Your task to perform on an android device: check data usage Image 0: 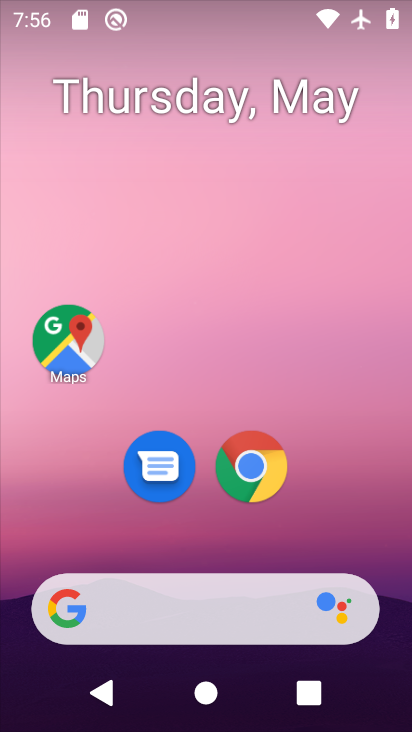
Step 0: drag from (368, 526) to (319, 156)
Your task to perform on an android device: check data usage Image 1: 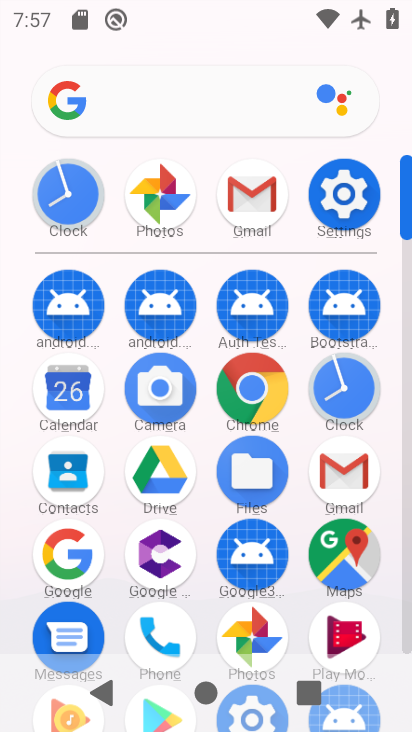
Step 1: click (343, 197)
Your task to perform on an android device: check data usage Image 2: 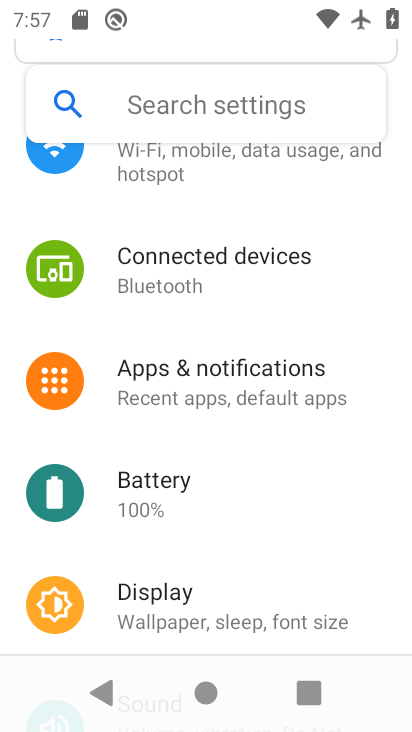
Step 2: click (250, 222)
Your task to perform on an android device: check data usage Image 3: 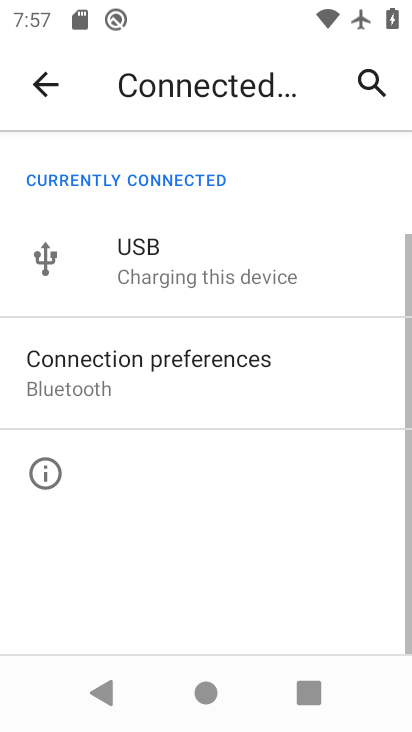
Step 3: click (275, 154)
Your task to perform on an android device: check data usage Image 4: 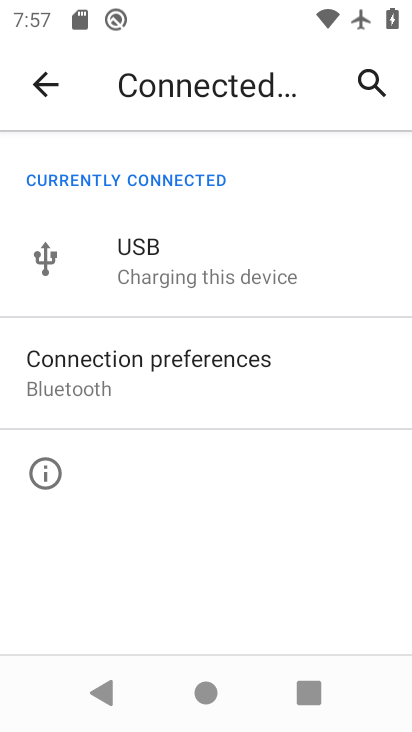
Step 4: click (28, 89)
Your task to perform on an android device: check data usage Image 5: 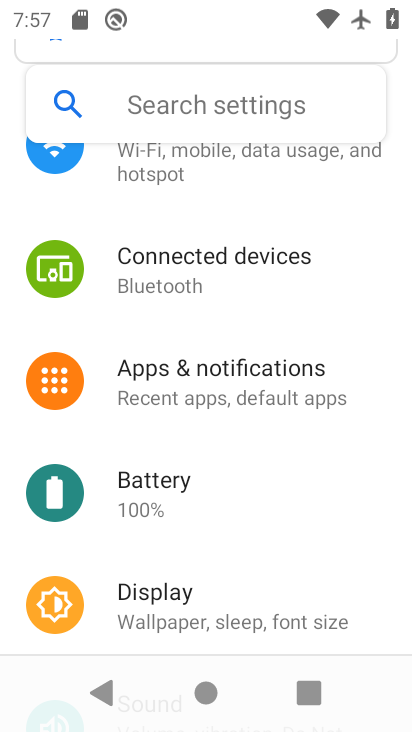
Step 5: click (161, 162)
Your task to perform on an android device: check data usage Image 6: 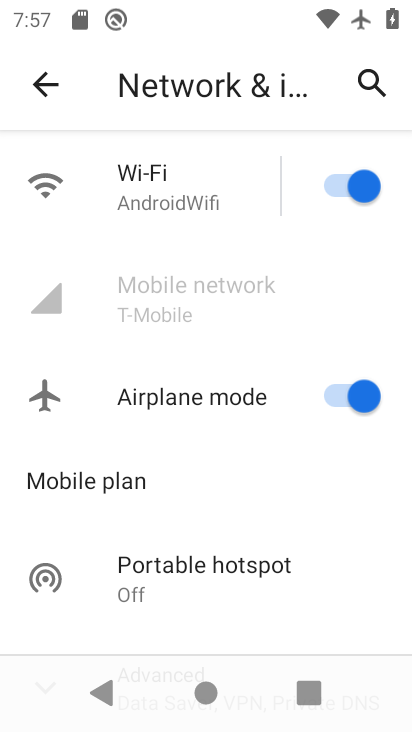
Step 6: task complete